Your task to perform on an android device: turn off notifications settings in the gmail app Image 0: 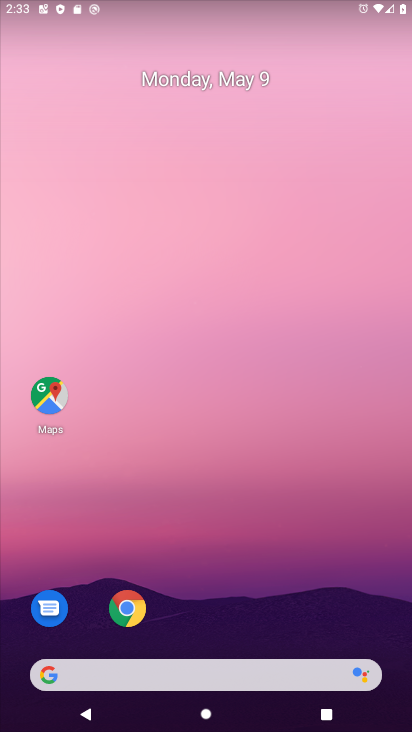
Step 0: drag from (211, 635) to (245, 162)
Your task to perform on an android device: turn off notifications settings in the gmail app Image 1: 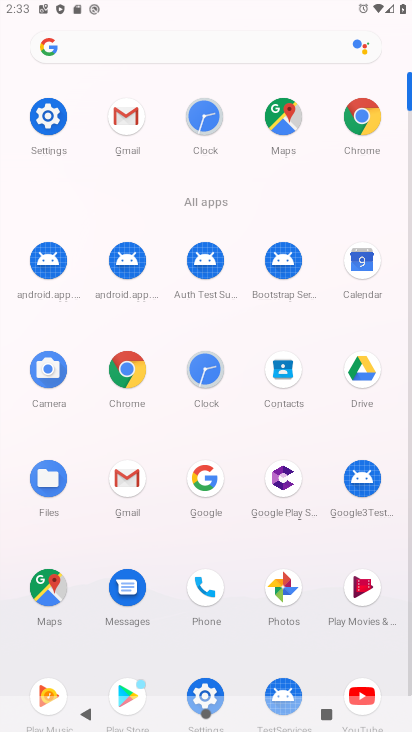
Step 1: click (116, 122)
Your task to perform on an android device: turn off notifications settings in the gmail app Image 2: 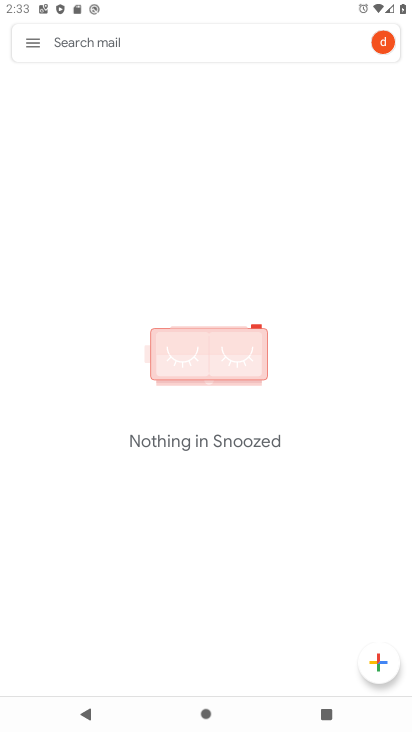
Step 2: click (43, 46)
Your task to perform on an android device: turn off notifications settings in the gmail app Image 3: 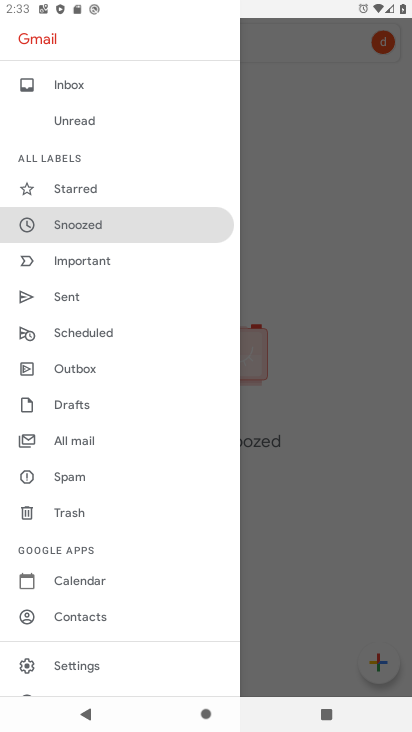
Step 3: click (92, 664)
Your task to perform on an android device: turn off notifications settings in the gmail app Image 4: 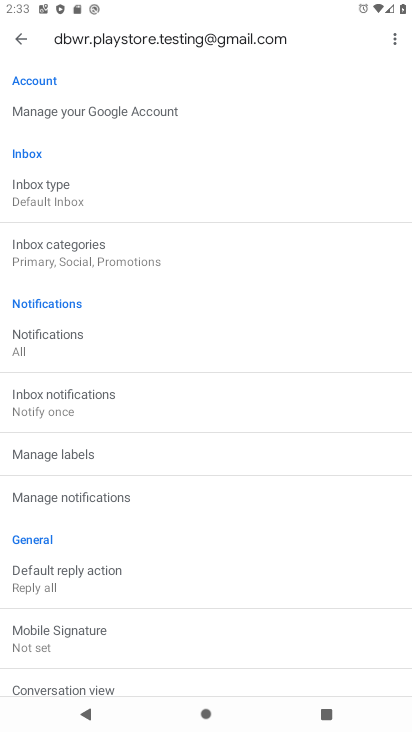
Step 4: click (87, 335)
Your task to perform on an android device: turn off notifications settings in the gmail app Image 5: 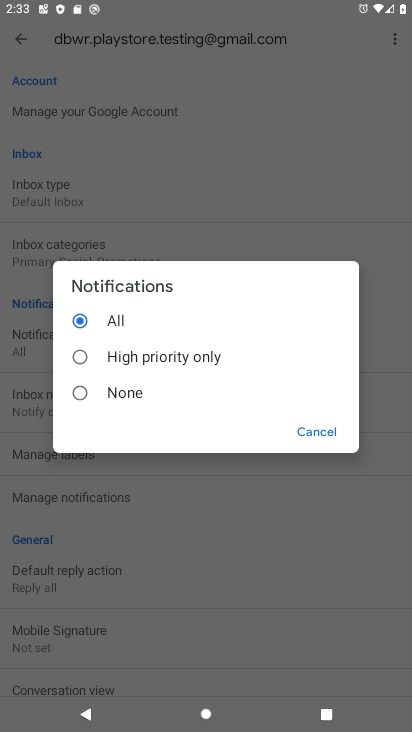
Step 5: click (128, 391)
Your task to perform on an android device: turn off notifications settings in the gmail app Image 6: 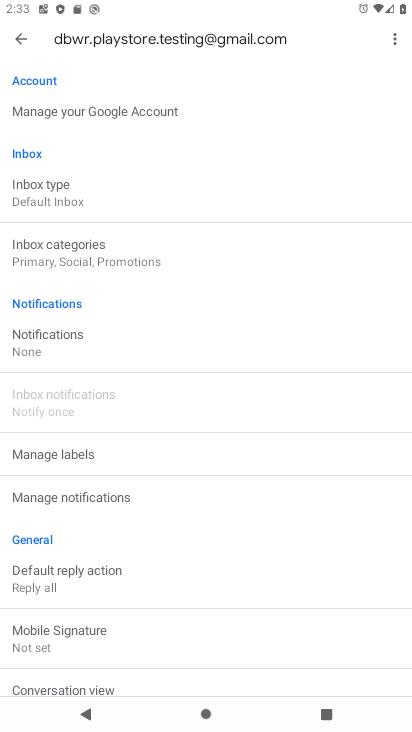
Step 6: task complete